Your task to perform on an android device: snooze an email in the gmail app Image 0: 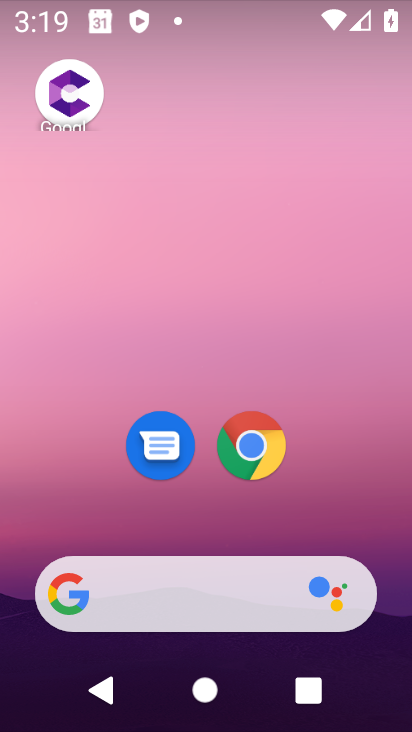
Step 0: drag from (336, 519) to (340, 40)
Your task to perform on an android device: snooze an email in the gmail app Image 1: 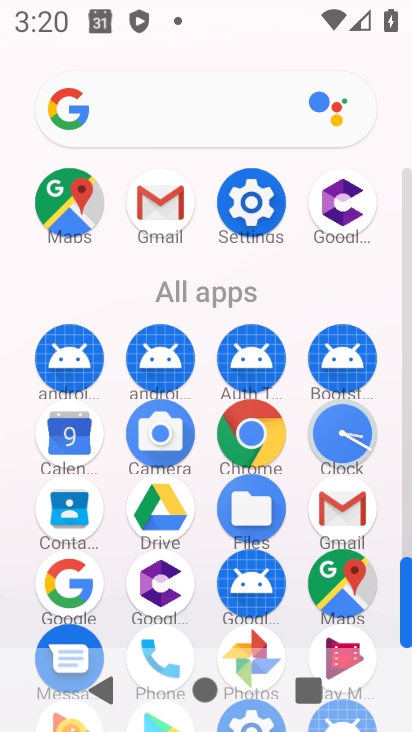
Step 1: click (333, 506)
Your task to perform on an android device: snooze an email in the gmail app Image 2: 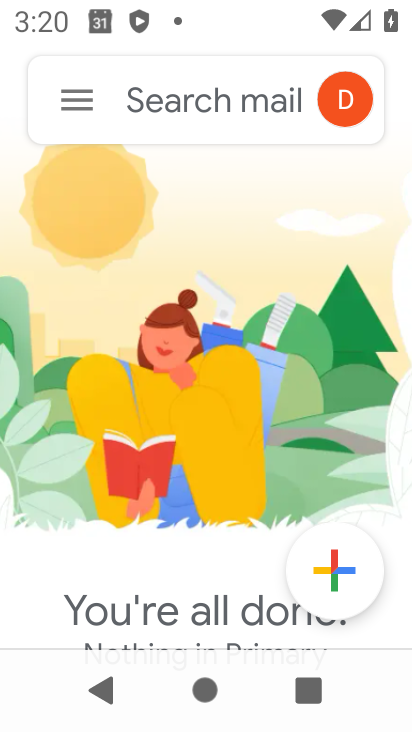
Step 2: click (79, 98)
Your task to perform on an android device: snooze an email in the gmail app Image 3: 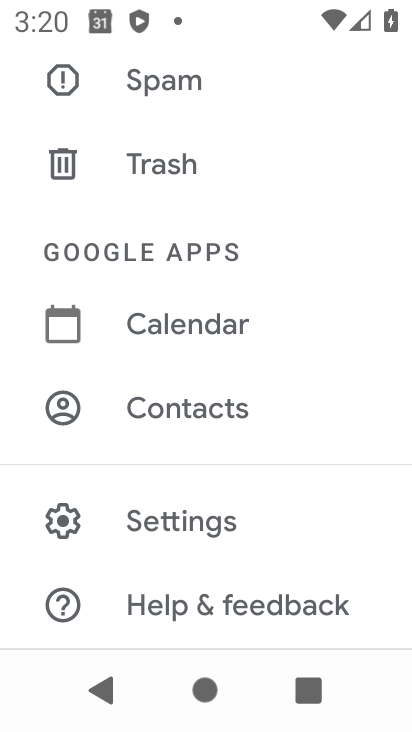
Step 3: drag from (224, 249) to (265, 371)
Your task to perform on an android device: snooze an email in the gmail app Image 4: 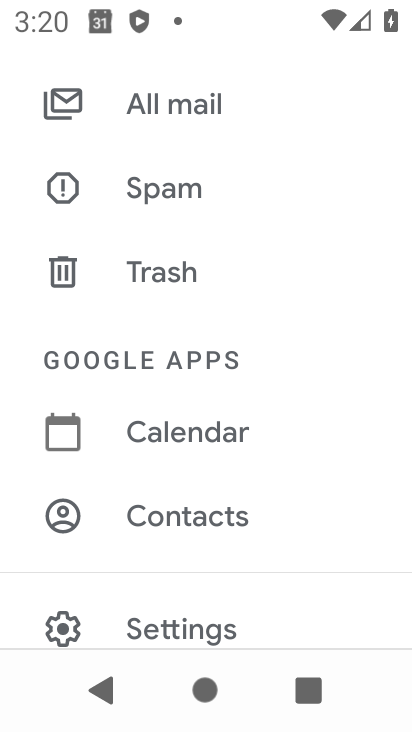
Step 4: drag from (282, 247) to (285, 371)
Your task to perform on an android device: snooze an email in the gmail app Image 5: 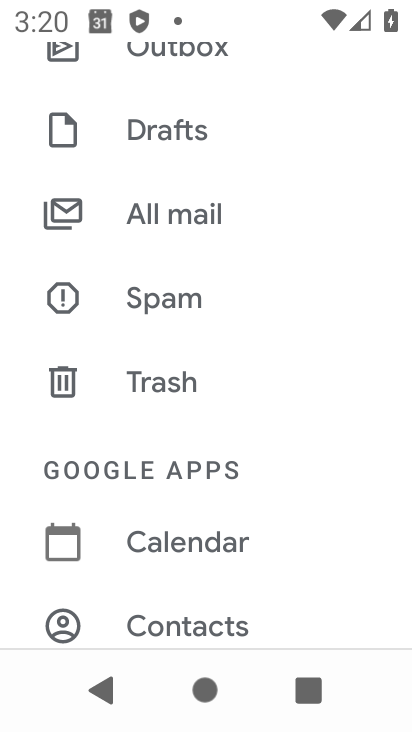
Step 5: drag from (265, 250) to (270, 351)
Your task to perform on an android device: snooze an email in the gmail app Image 6: 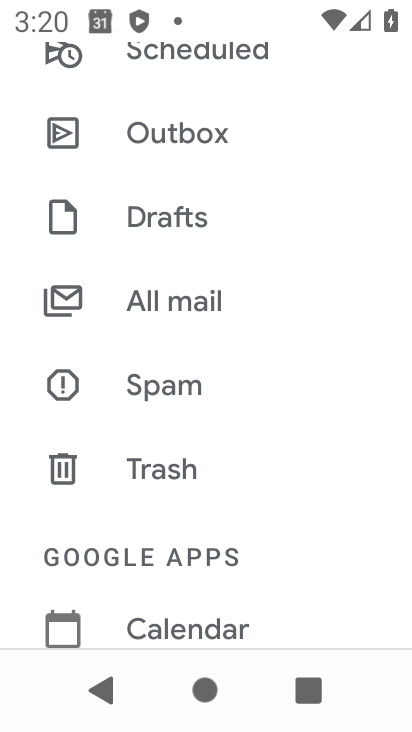
Step 6: drag from (259, 268) to (269, 371)
Your task to perform on an android device: snooze an email in the gmail app Image 7: 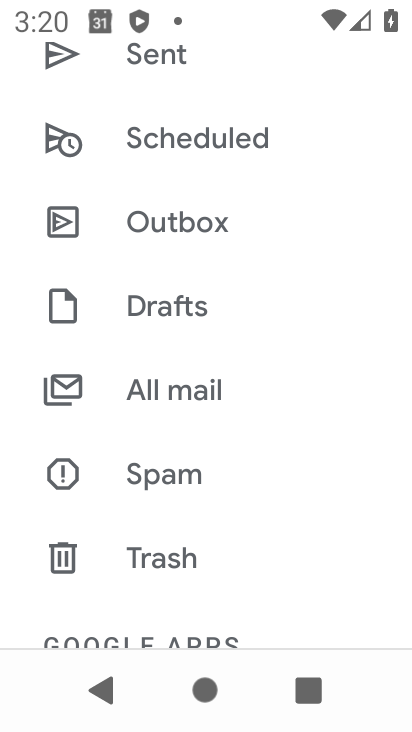
Step 7: drag from (247, 238) to (258, 363)
Your task to perform on an android device: snooze an email in the gmail app Image 8: 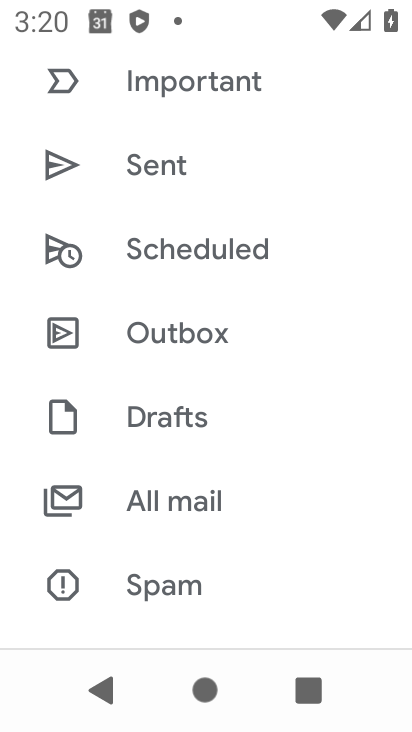
Step 8: drag from (219, 247) to (199, 357)
Your task to perform on an android device: snooze an email in the gmail app Image 9: 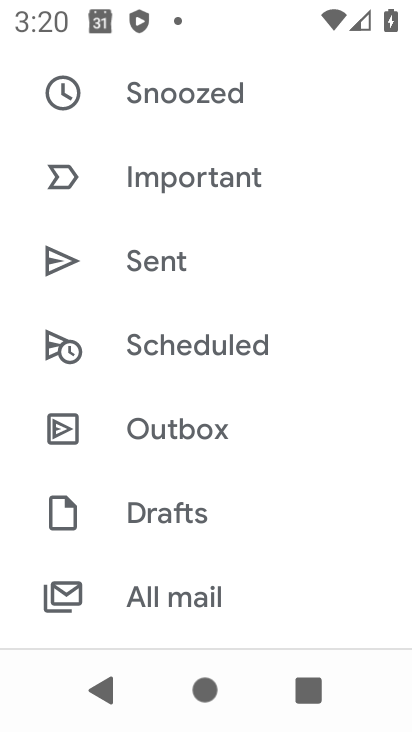
Step 9: drag from (191, 226) to (204, 438)
Your task to perform on an android device: snooze an email in the gmail app Image 10: 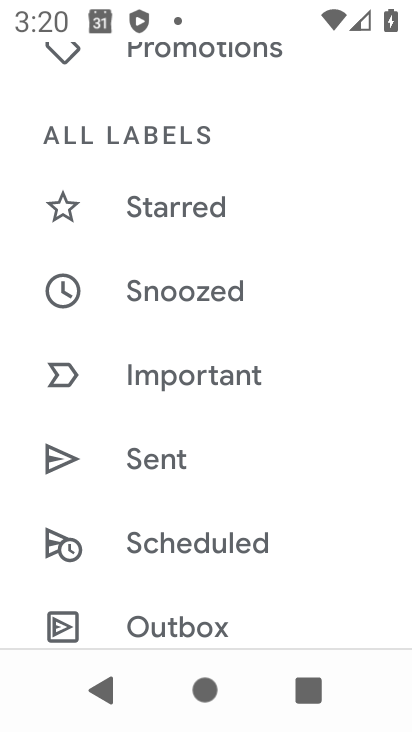
Step 10: click (172, 274)
Your task to perform on an android device: snooze an email in the gmail app Image 11: 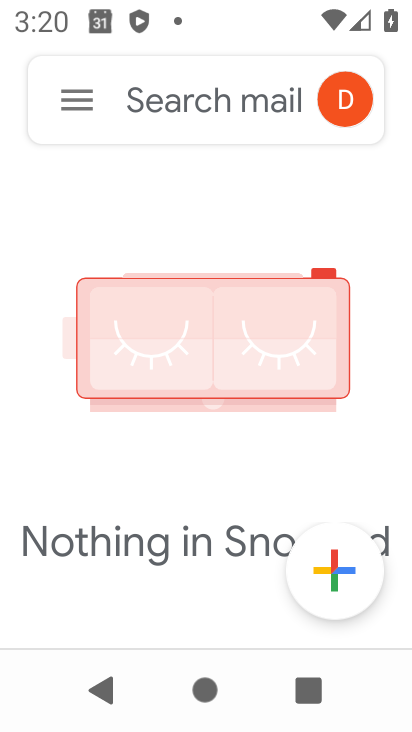
Step 11: task complete